Your task to perform on an android device: What's on my calendar tomorrow? Image 0: 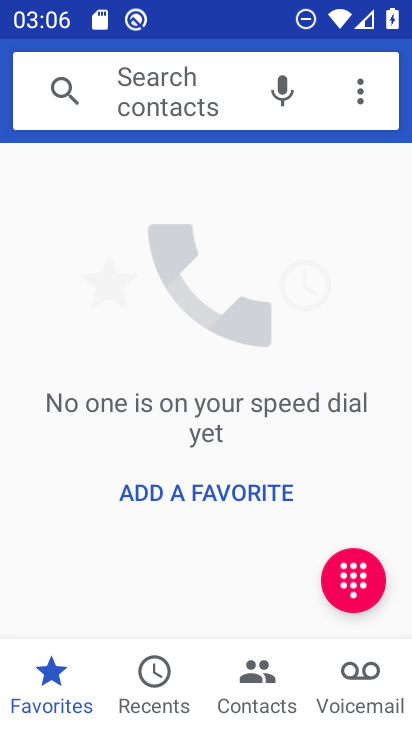
Step 0: press home button
Your task to perform on an android device: What's on my calendar tomorrow? Image 1: 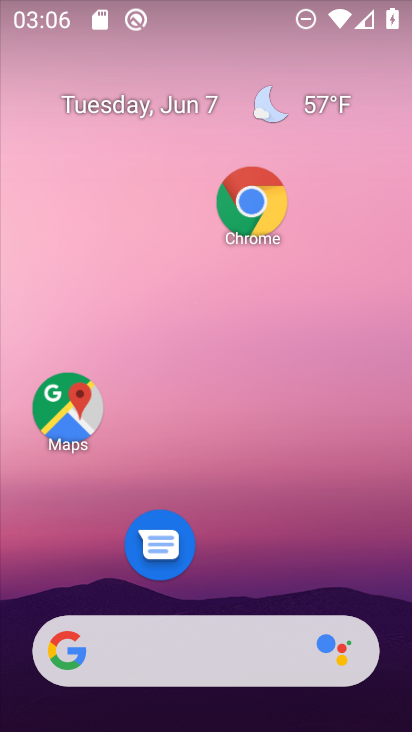
Step 1: drag from (270, 451) to (309, 169)
Your task to perform on an android device: What's on my calendar tomorrow? Image 2: 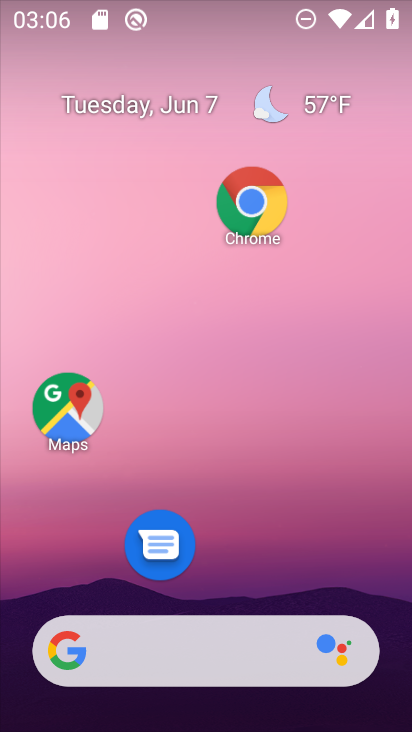
Step 2: drag from (242, 552) to (265, 245)
Your task to perform on an android device: What's on my calendar tomorrow? Image 3: 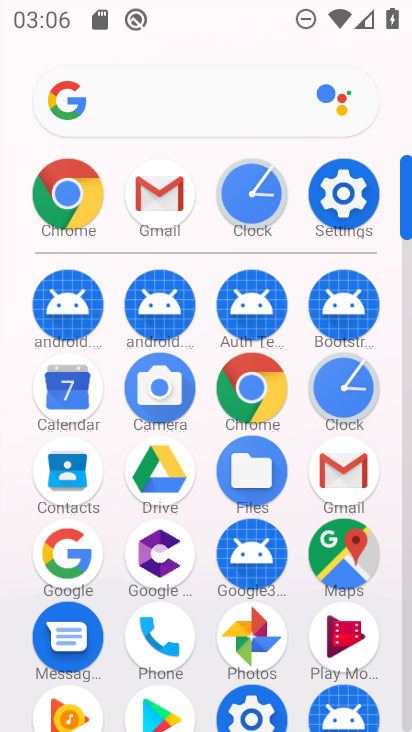
Step 3: click (69, 385)
Your task to perform on an android device: What's on my calendar tomorrow? Image 4: 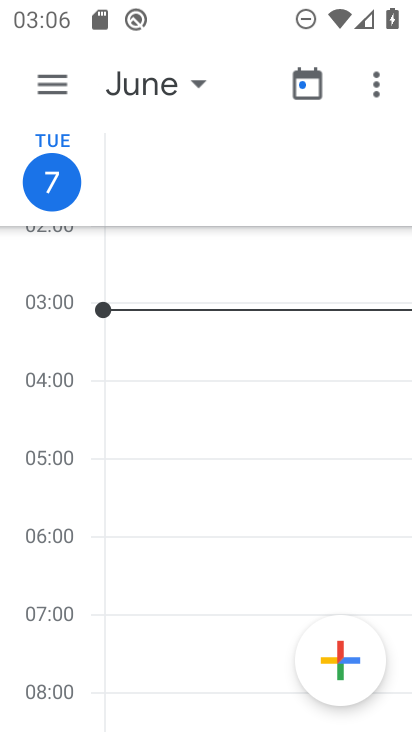
Step 4: drag from (185, 523) to (205, 205)
Your task to perform on an android device: What's on my calendar tomorrow? Image 5: 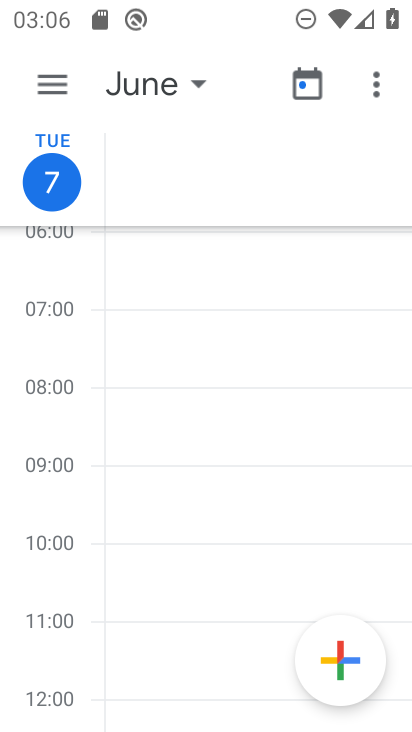
Step 5: click (59, 84)
Your task to perform on an android device: What's on my calendar tomorrow? Image 6: 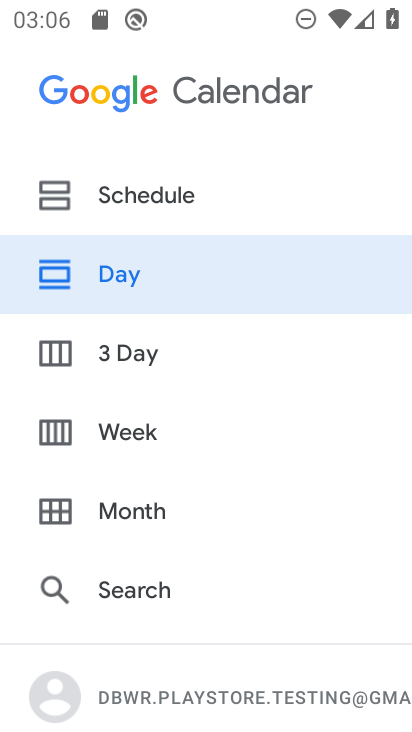
Step 6: click (149, 507)
Your task to perform on an android device: What's on my calendar tomorrow? Image 7: 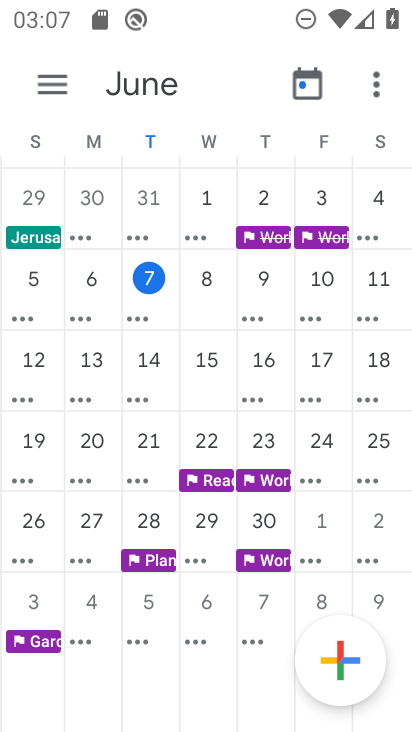
Step 7: click (207, 284)
Your task to perform on an android device: What's on my calendar tomorrow? Image 8: 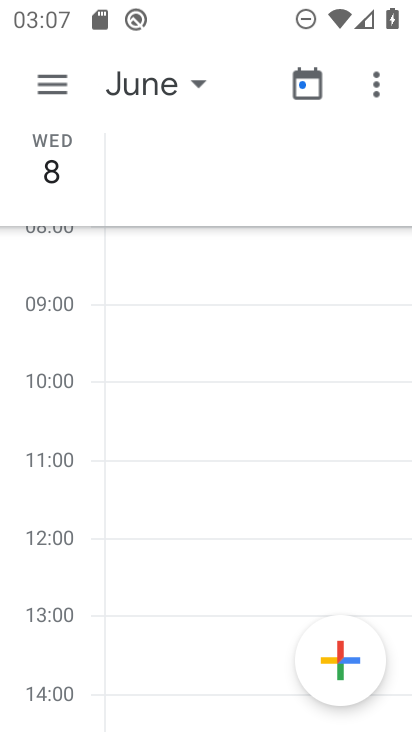
Step 8: task complete